Your task to perform on an android device: Show me popular videos on Youtube Image 0: 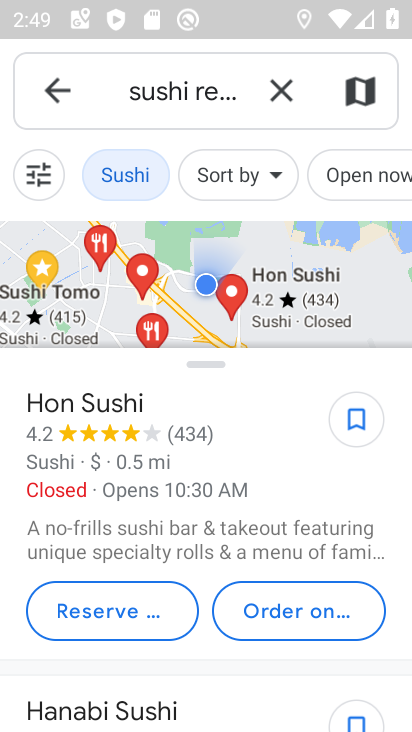
Step 0: press home button
Your task to perform on an android device: Show me popular videos on Youtube Image 1: 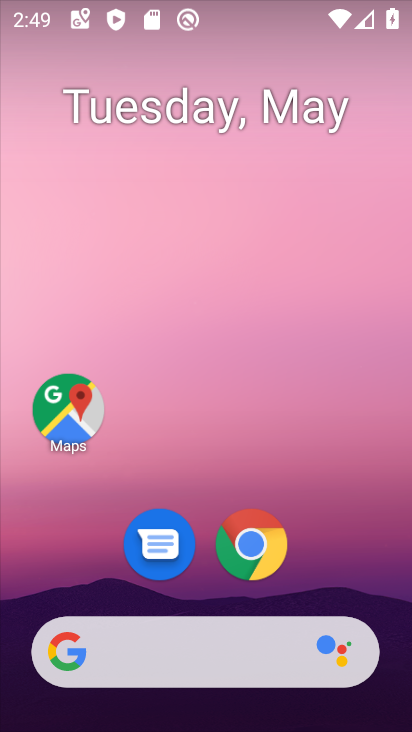
Step 1: drag from (323, 573) to (224, 115)
Your task to perform on an android device: Show me popular videos on Youtube Image 2: 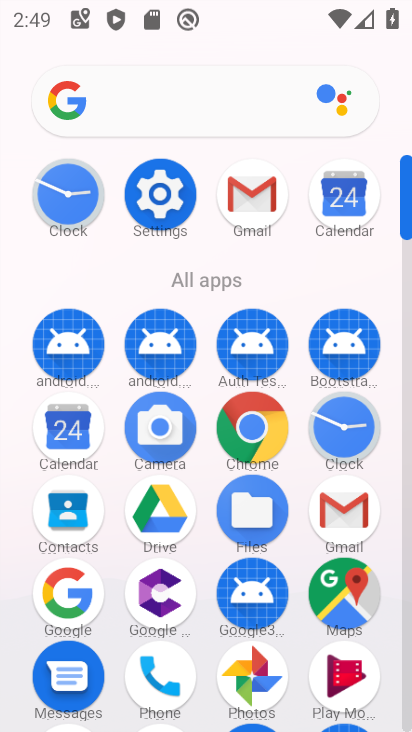
Step 2: drag from (204, 471) to (218, 253)
Your task to perform on an android device: Show me popular videos on Youtube Image 3: 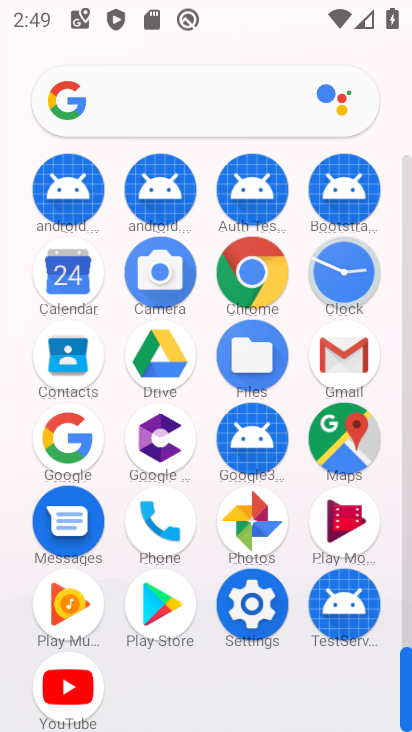
Step 3: click (69, 688)
Your task to perform on an android device: Show me popular videos on Youtube Image 4: 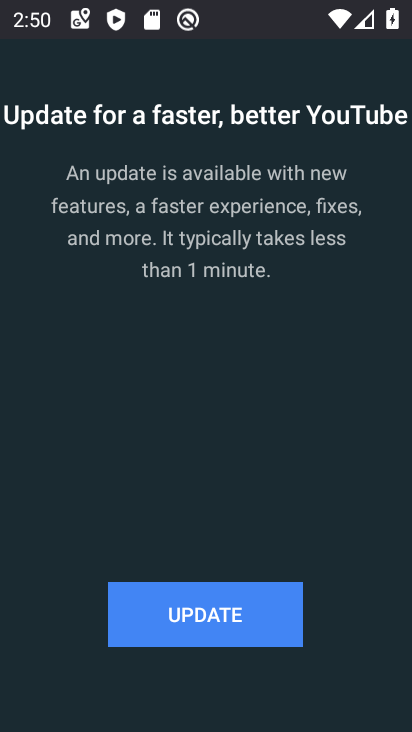
Step 4: click (189, 607)
Your task to perform on an android device: Show me popular videos on Youtube Image 5: 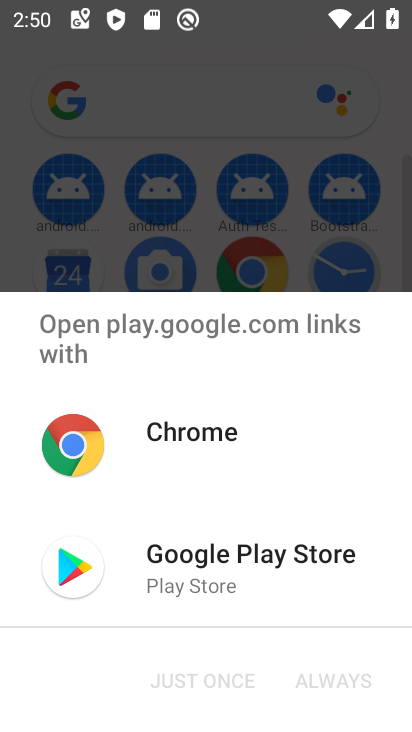
Step 5: click (217, 548)
Your task to perform on an android device: Show me popular videos on Youtube Image 6: 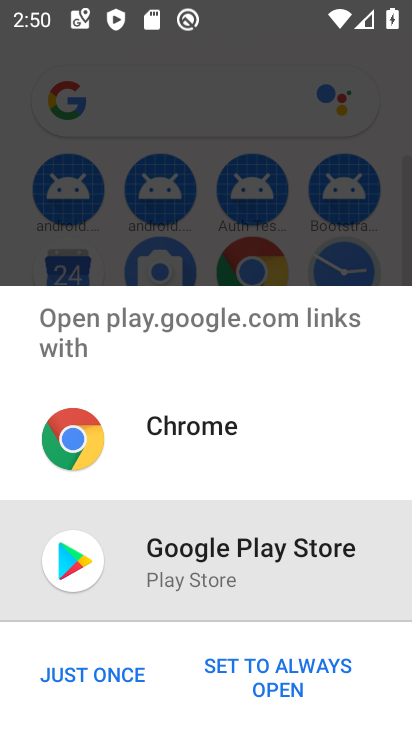
Step 6: click (117, 674)
Your task to perform on an android device: Show me popular videos on Youtube Image 7: 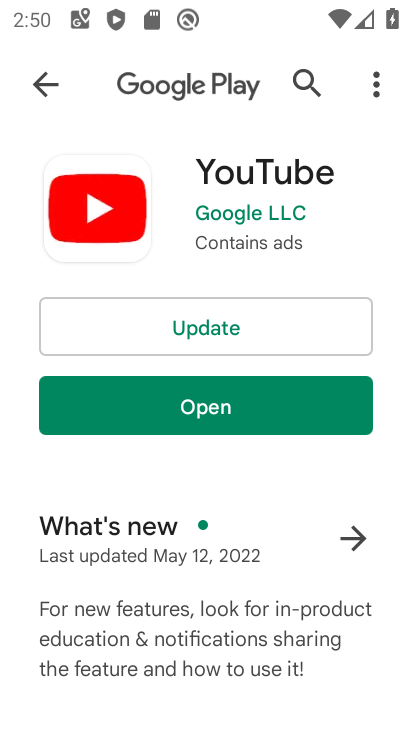
Step 7: click (217, 332)
Your task to perform on an android device: Show me popular videos on Youtube Image 8: 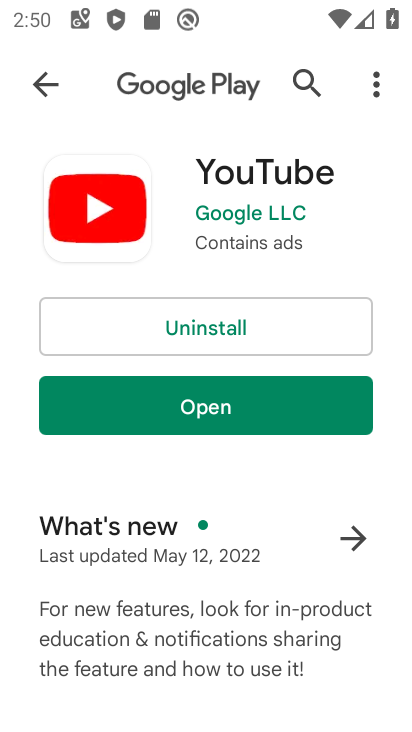
Step 8: click (192, 408)
Your task to perform on an android device: Show me popular videos on Youtube Image 9: 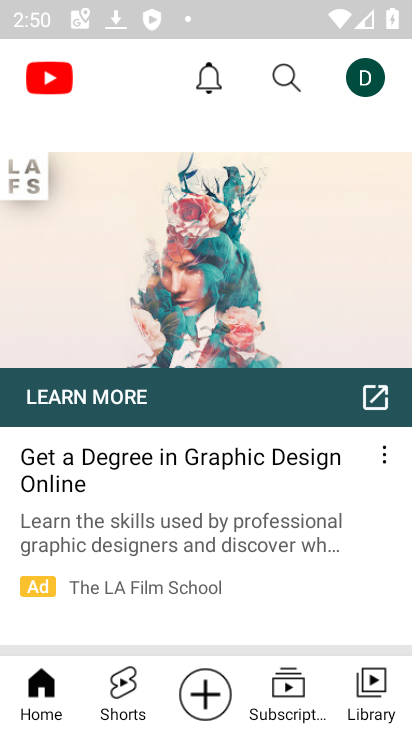
Step 9: click (283, 79)
Your task to perform on an android device: Show me popular videos on Youtube Image 10: 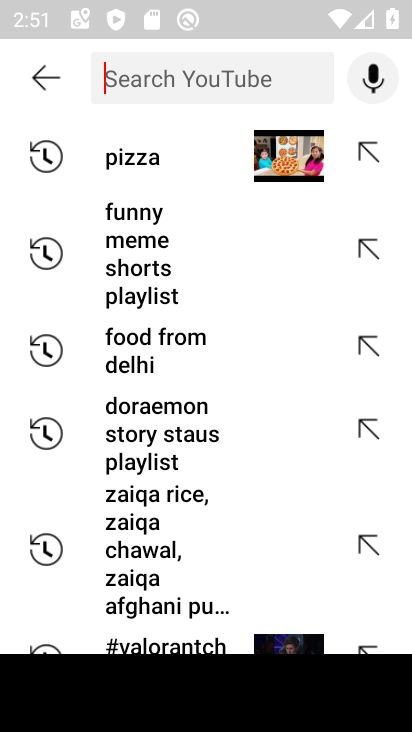
Step 10: type "Popular videos"
Your task to perform on an android device: Show me popular videos on Youtube Image 11: 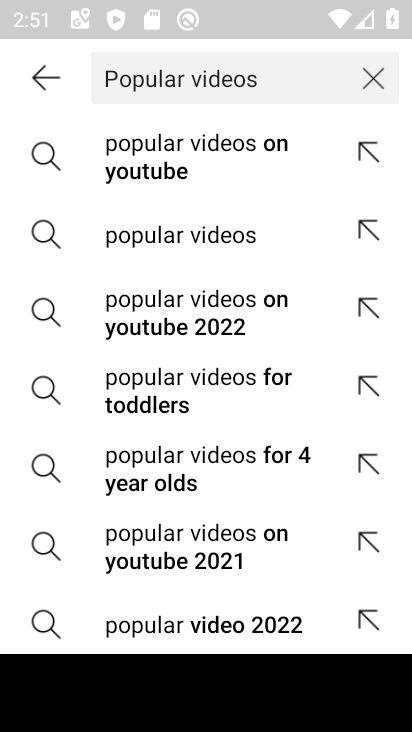
Step 11: click (185, 164)
Your task to perform on an android device: Show me popular videos on Youtube Image 12: 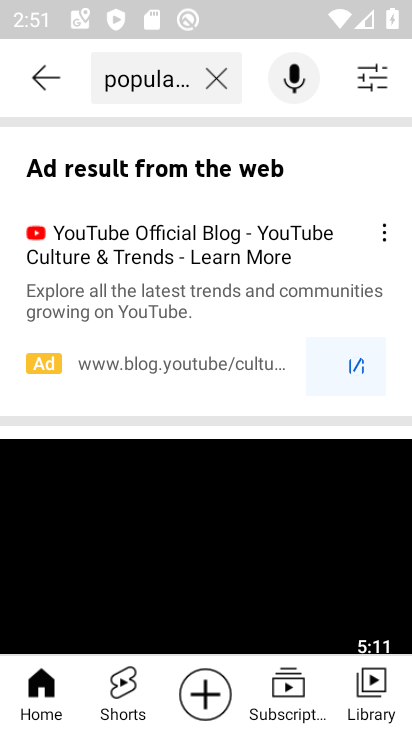
Step 12: task complete